Your task to perform on an android device: Open ESPN.com Image 0: 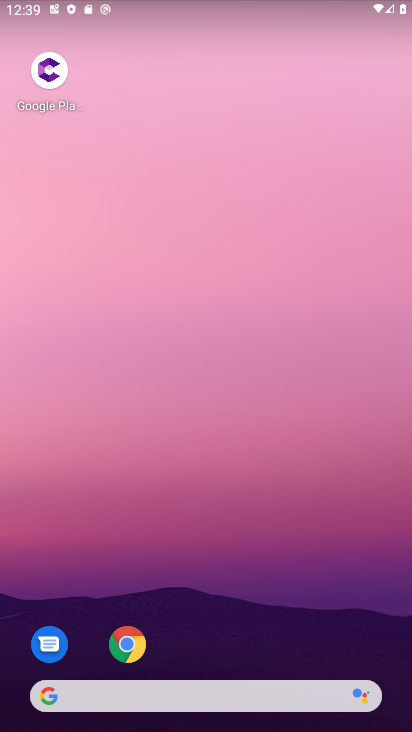
Step 0: drag from (205, 642) to (244, 294)
Your task to perform on an android device: Open ESPN.com Image 1: 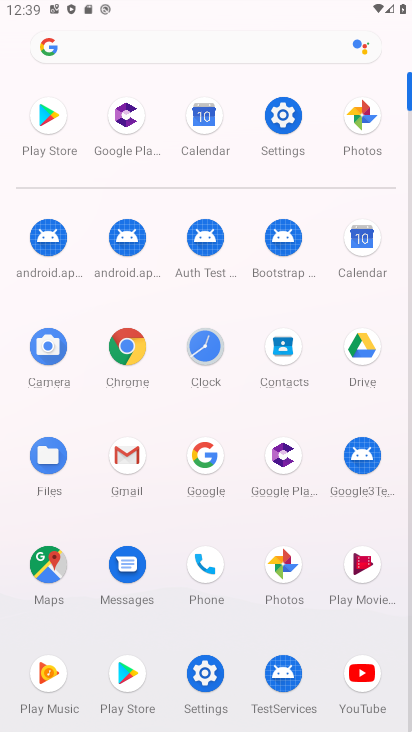
Step 1: click (129, 361)
Your task to perform on an android device: Open ESPN.com Image 2: 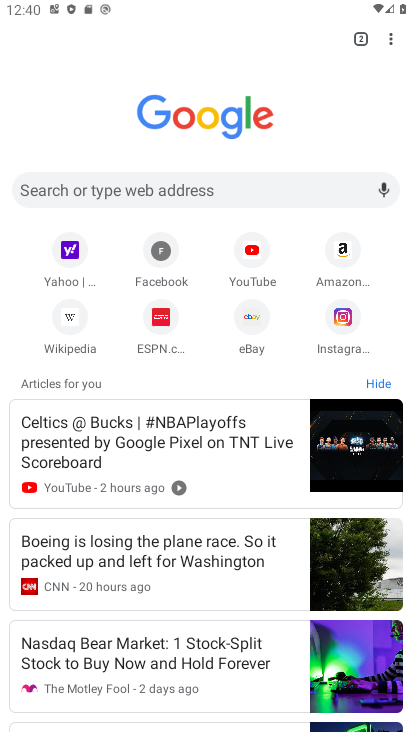
Step 2: click (171, 326)
Your task to perform on an android device: Open ESPN.com Image 3: 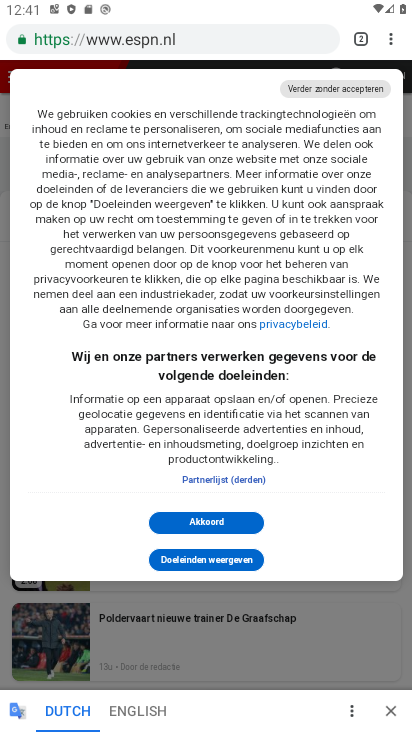
Step 3: task complete